Your task to perform on an android device: change the clock display to analog Image 0: 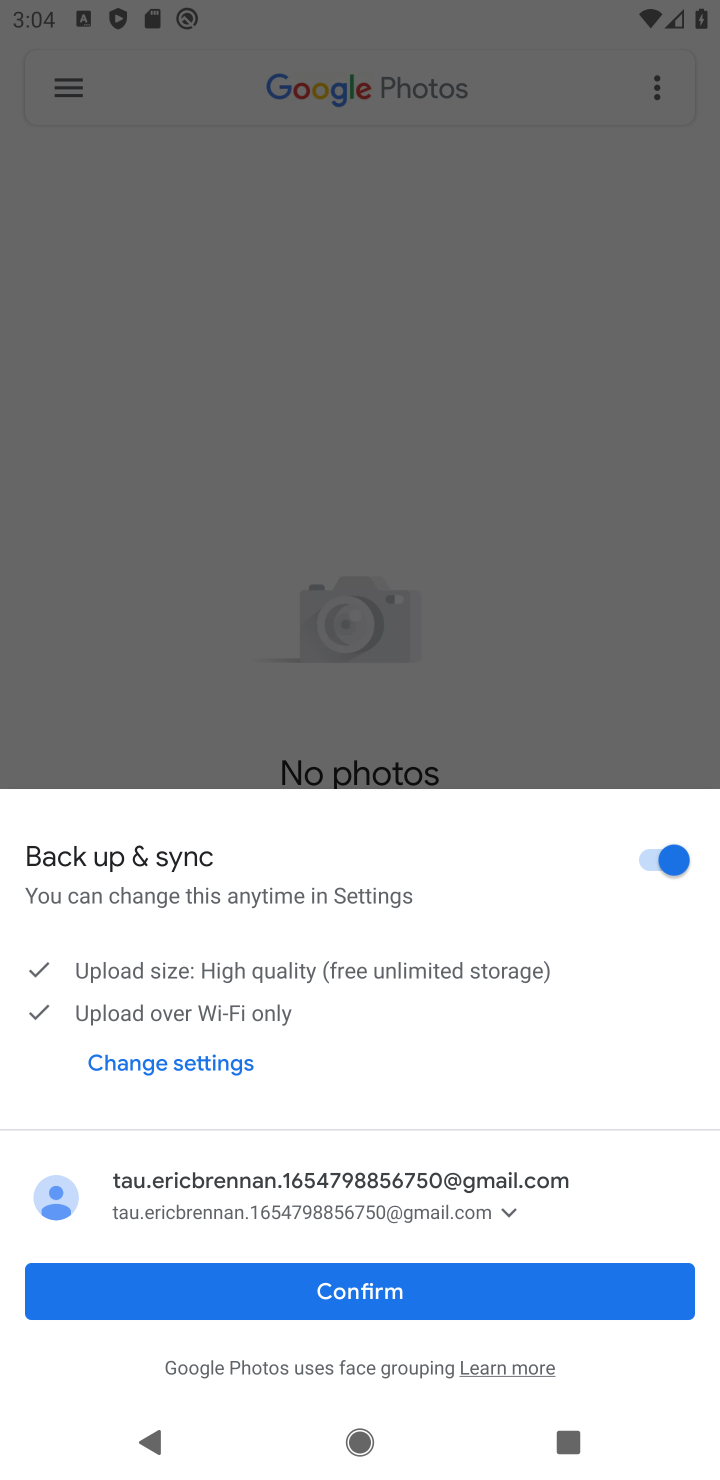
Step 0: press home button
Your task to perform on an android device: change the clock display to analog Image 1: 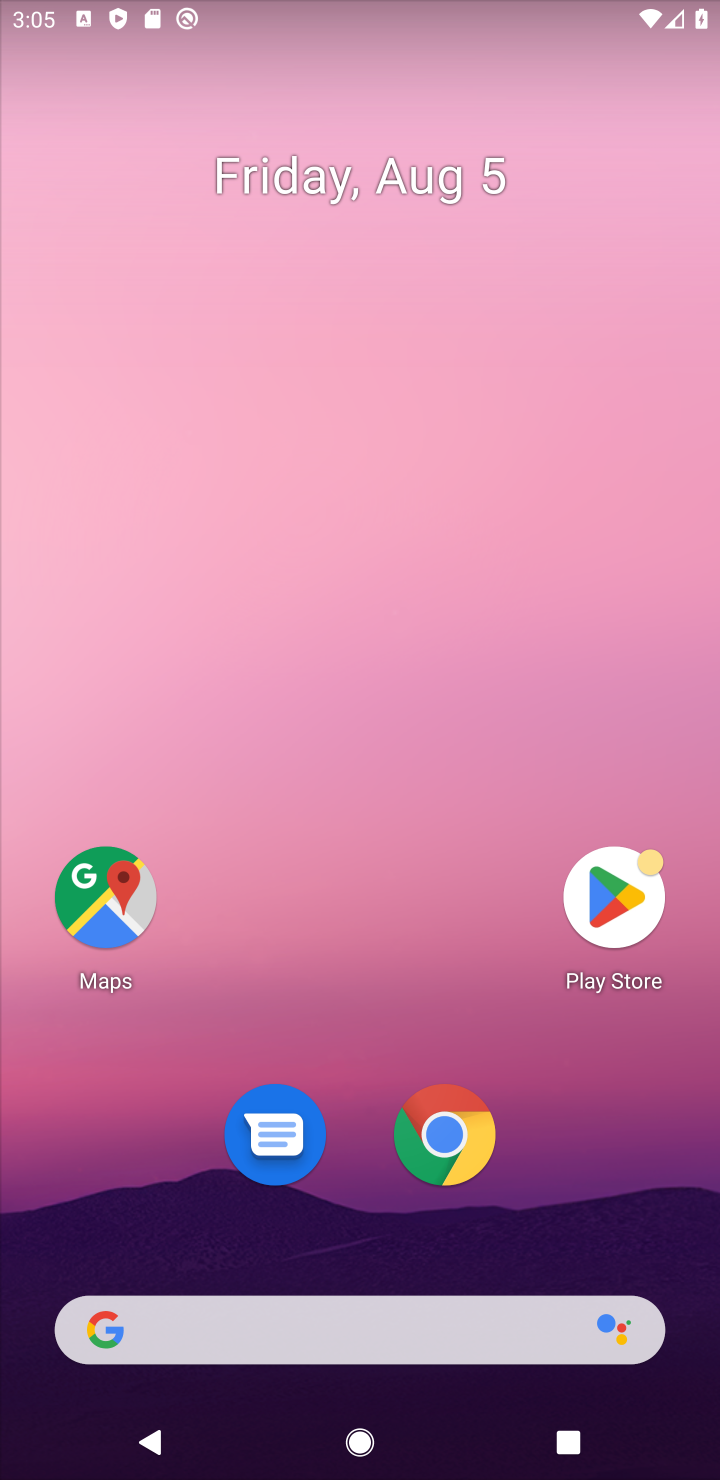
Step 1: drag from (350, 961) to (436, 240)
Your task to perform on an android device: change the clock display to analog Image 2: 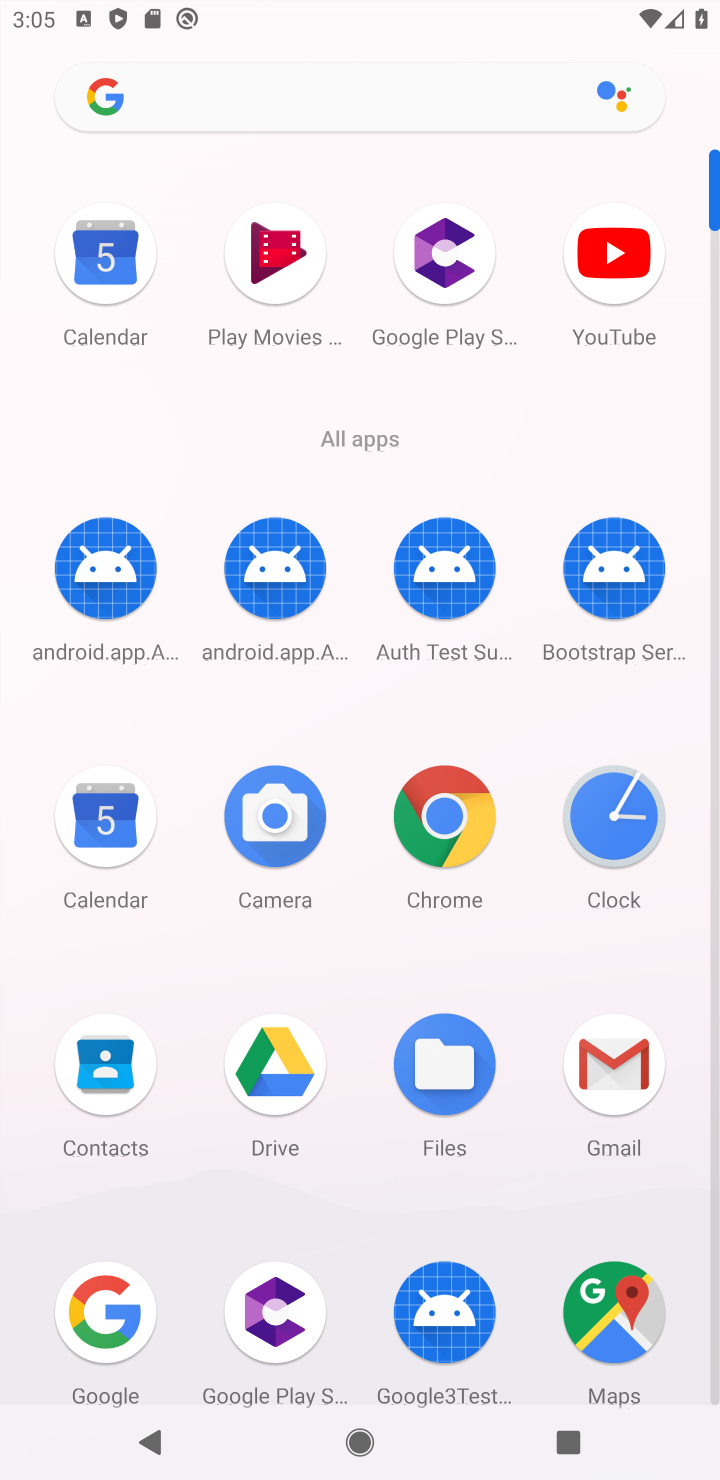
Step 2: drag from (553, 750) to (560, 349)
Your task to perform on an android device: change the clock display to analog Image 3: 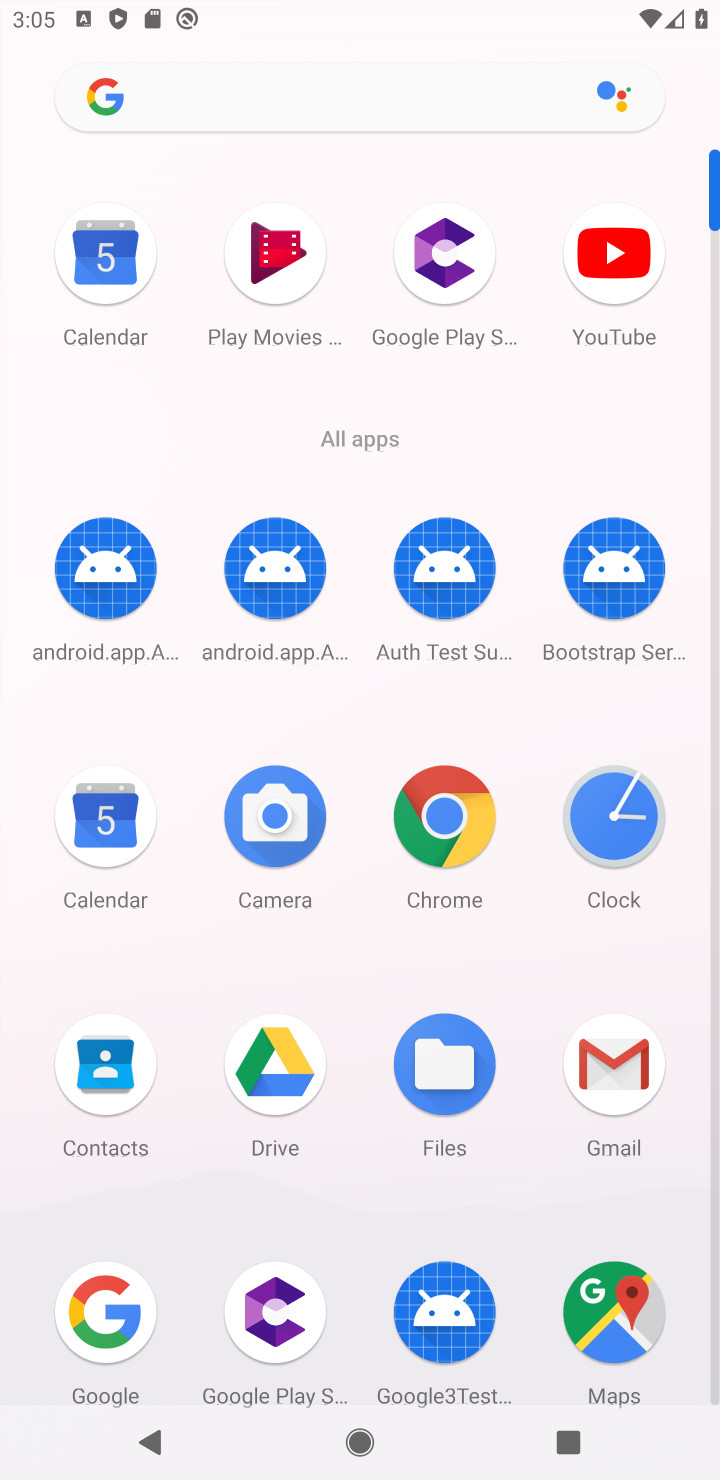
Step 3: click (604, 817)
Your task to perform on an android device: change the clock display to analog Image 4: 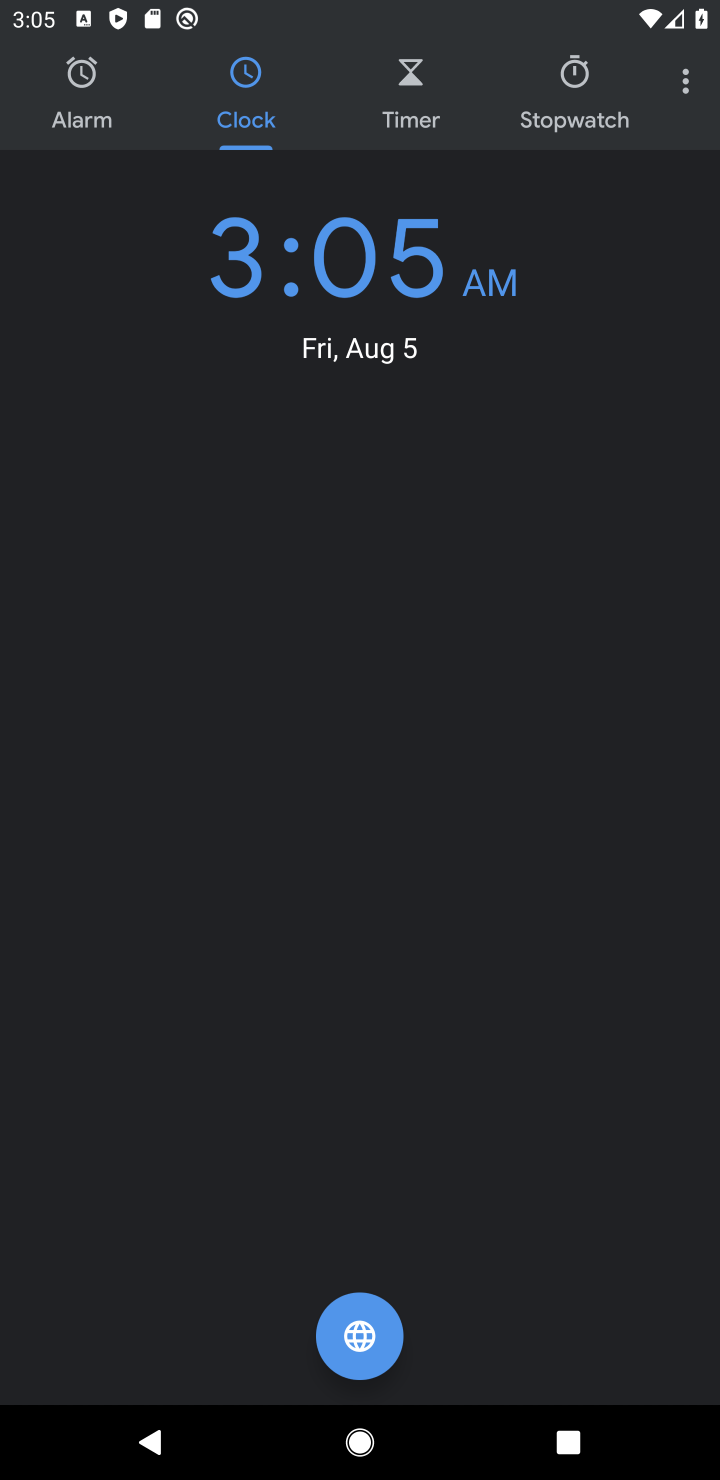
Step 4: task complete